Your task to perform on an android device: Go to eBay Image 0: 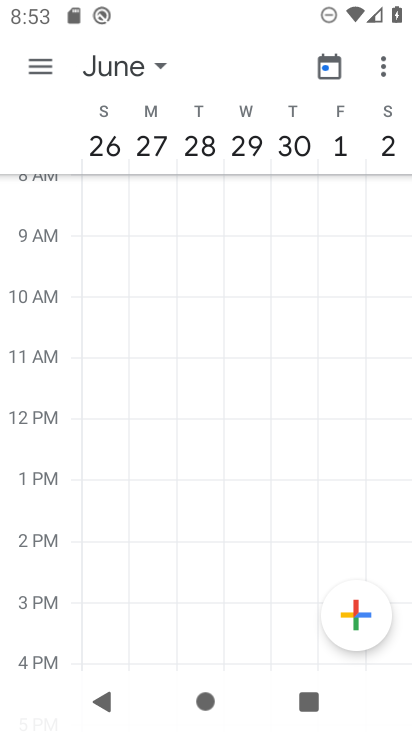
Step 0: press home button
Your task to perform on an android device: Go to eBay Image 1: 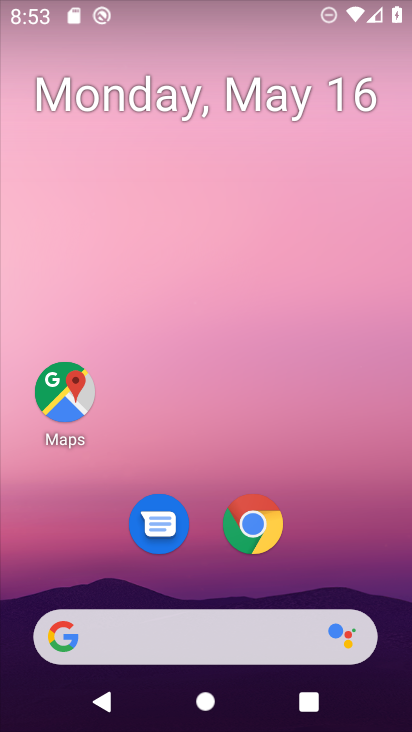
Step 1: click (247, 638)
Your task to perform on an android device: Go to eBay Image 2: 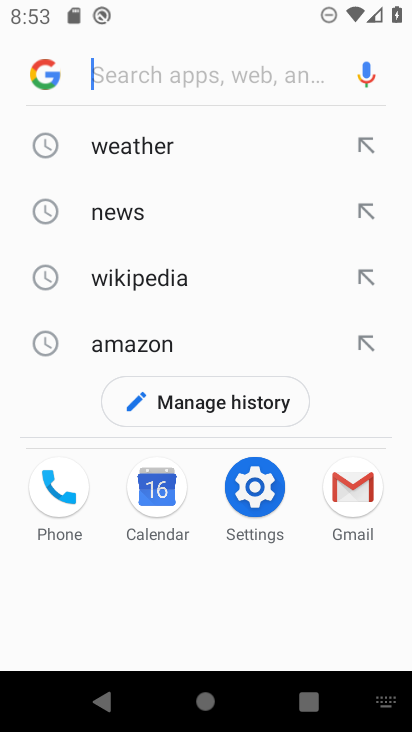
Step 2: type "ebay"
Your task to perform on an android device: Go to eBay Image 3: 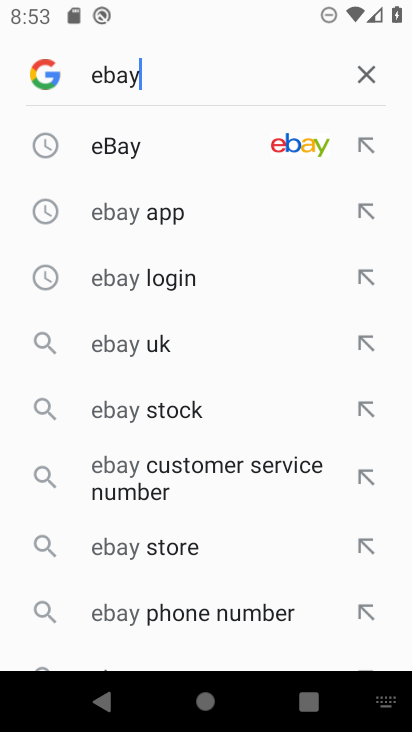
Step 3: click (110, 136)
Your task to perform on an android device: Go to eBay Image 4: 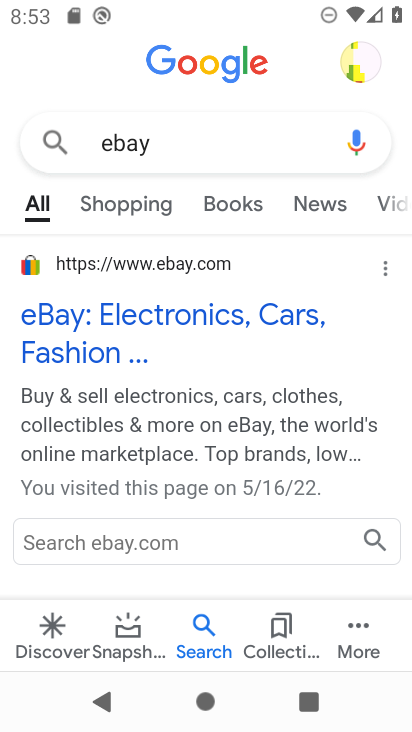
Step 4: click (59, 335)
Your task to perform on an android device: Go to eBay Image 5: 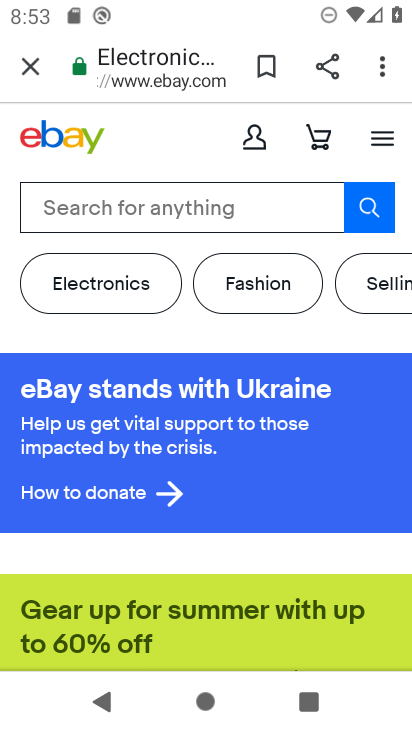
Step 5: task complete